Your task to perform on an android device: open device folders in google photos Image 0: 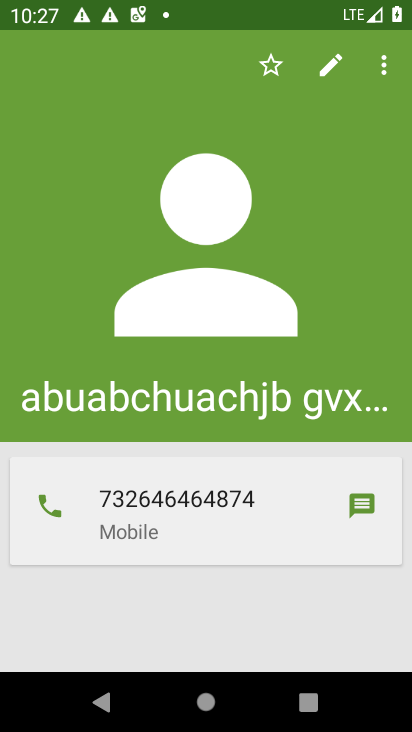
Step 0: press home button
Your task to perform on an android device: open device folders in google photos Image 1: 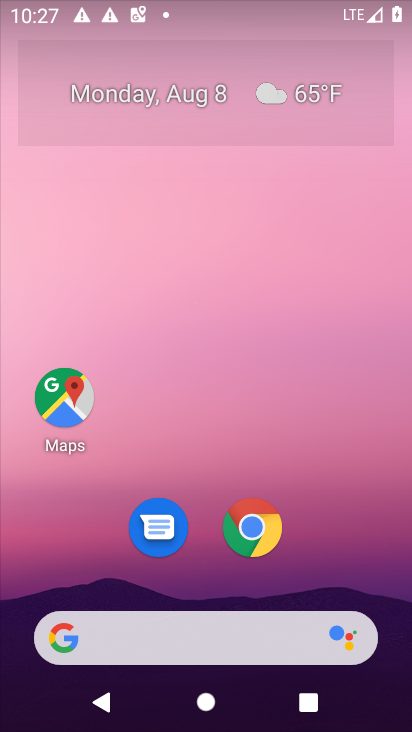
Step 1: drag from (396, 706) to (351, 232)
Your task to perform on an android device: open device folders in google photos Image 2: 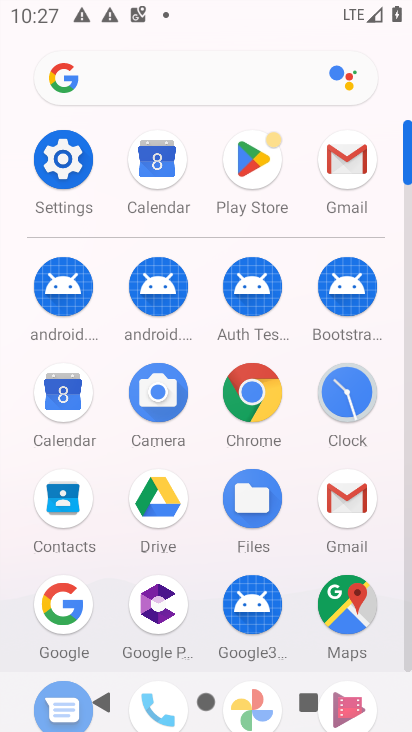
Step 2: drag from (215, 509) to (233, 278)
Your task to perform on an android device: open device folders in google photos Image 3: 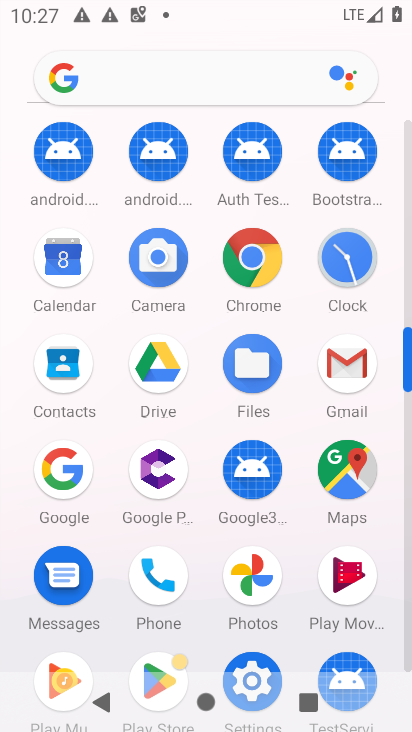
Step 3: click (243, 561)
Your task to perform on an android device: open device folders in google photos Image 4: 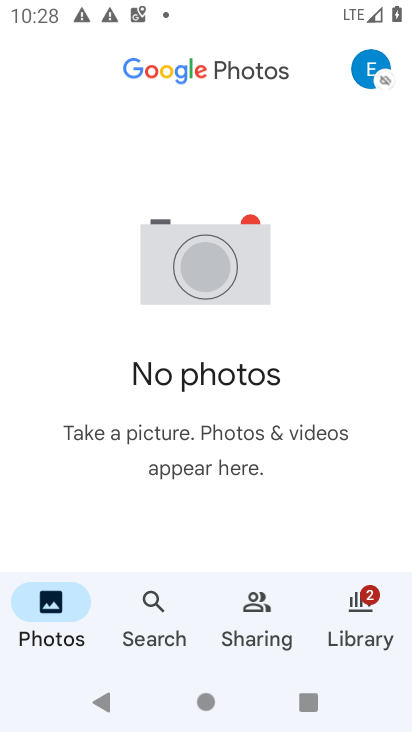
Step 4: task complete